Your task to perform on an android device: Open notification settings Image 0: 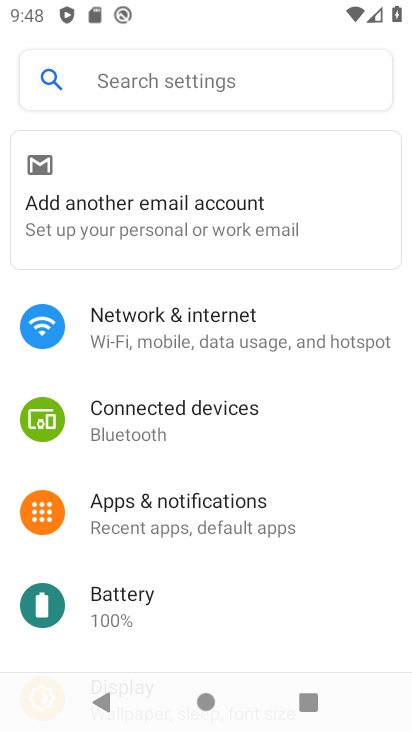
Step 0: click (291, 518)
Your task to perform on an android device: Open notification settings Image 1: 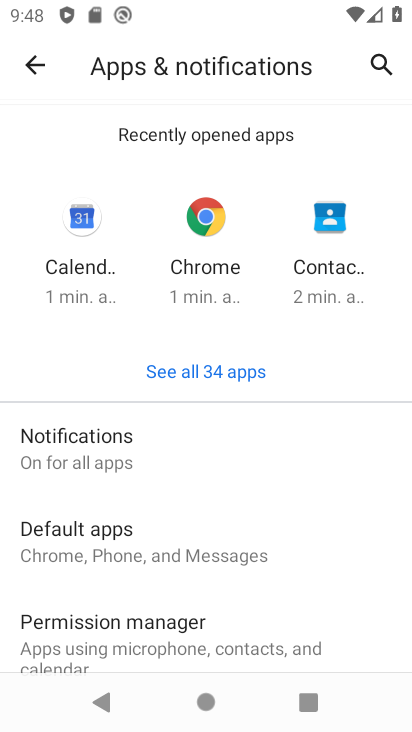
Step 1: task complete